Your task to perform on an android device: turn on wifi Image 0: 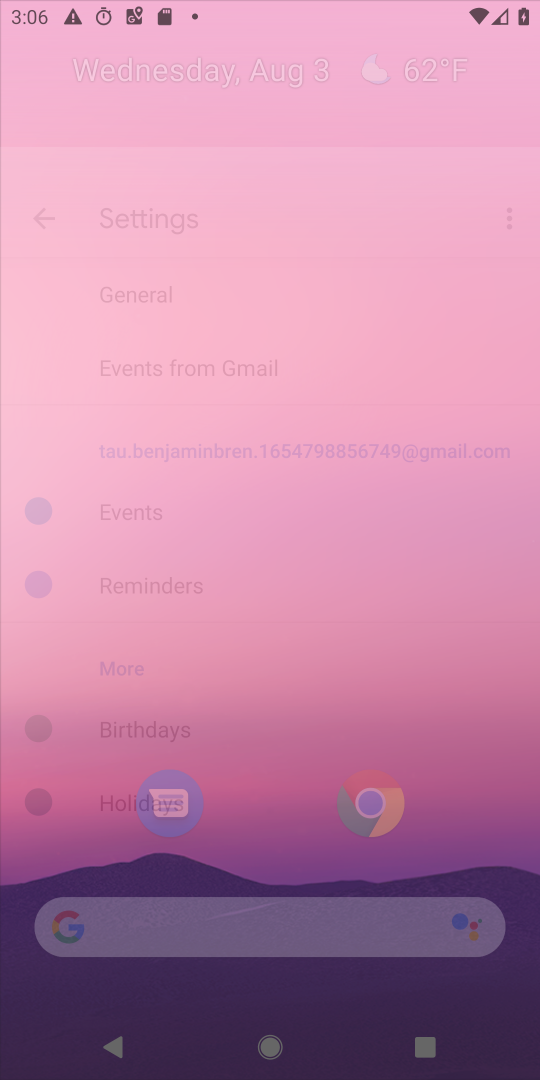
Step 0: click (205, 26)
Your task to perform on an android device: turn on wifi Image 1: 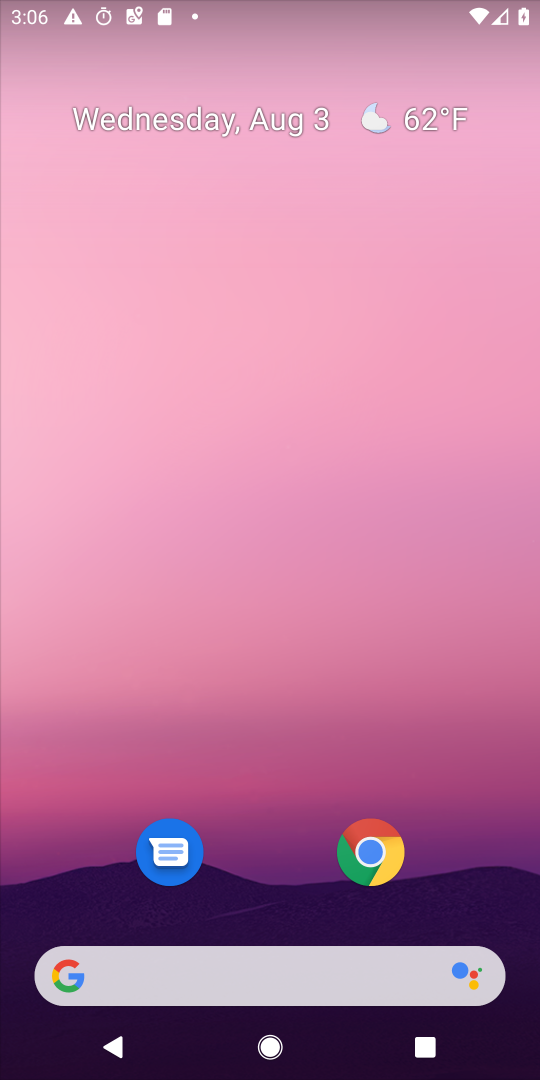
Step 1: task complete